Your task to perform on an android device: turn pop-ups off in chrome Image 0: 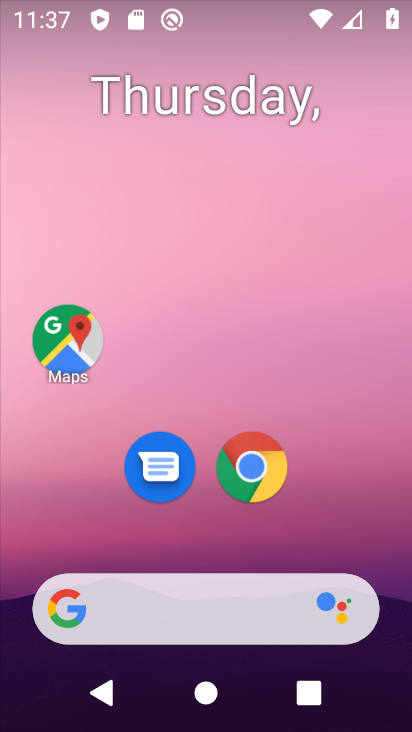
Step 0: click (262, 476)
Your task to perform on an android device: turn pop-ups off in chrome Image 1: 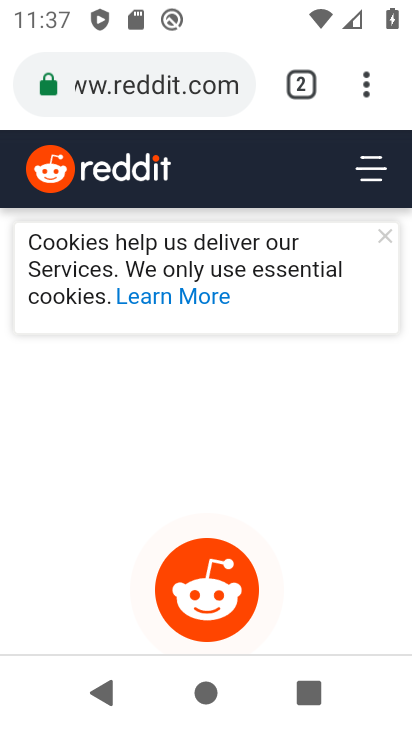
Step 1: click (367, 86)
Your task to perform on an android device: turn pop-ups off in chrome Image 2: 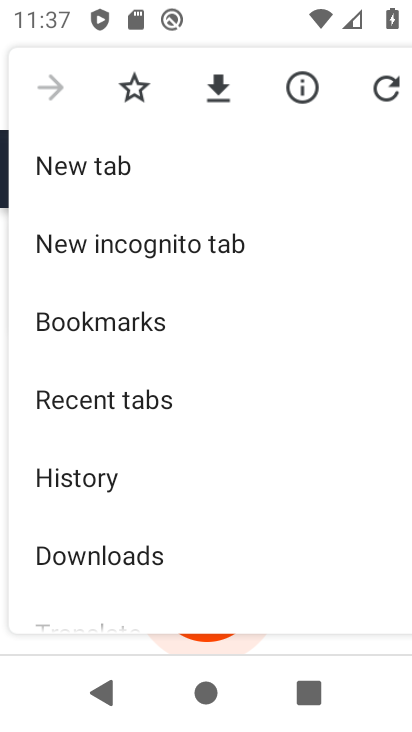
Step 2: drag from (208, 488) to (218, 147)
Your task to perform on an android device: turn pop-ups off in chrome Image 3: 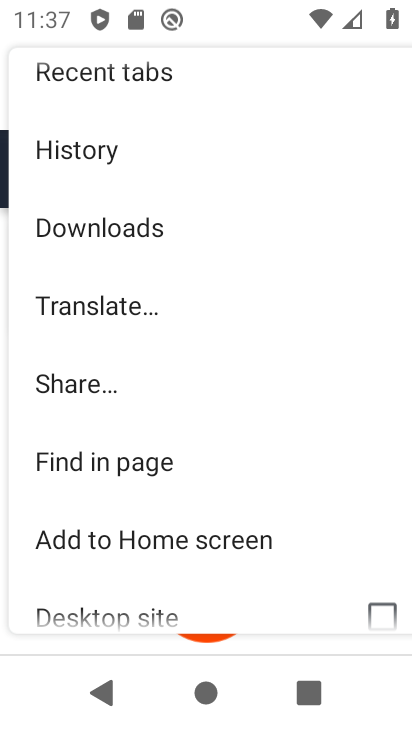
Step 3: drag from (209, 469) to (220, 114)
Your task to perform on an android device: turn pop-ups off in chrome Image 4: 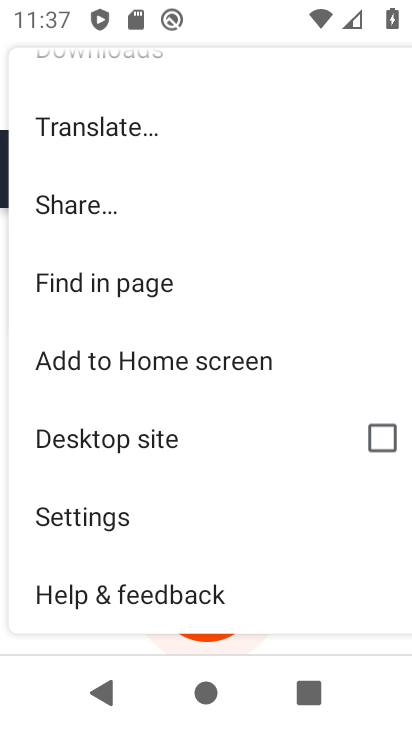
Step 4: click (81, 517)
Your task to perform on an android device: turn pop-ups off in chrome Image 5: 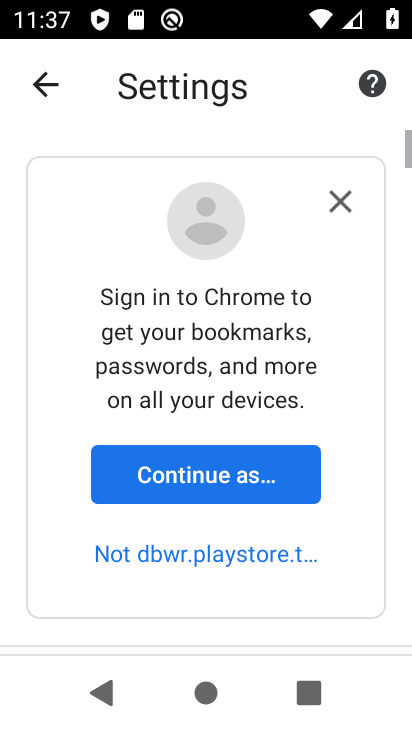
Step 5: drag from (216, 547) to (192, 93)
Your task to perform on an android device: turn pop-ups off in chrome Image 6: 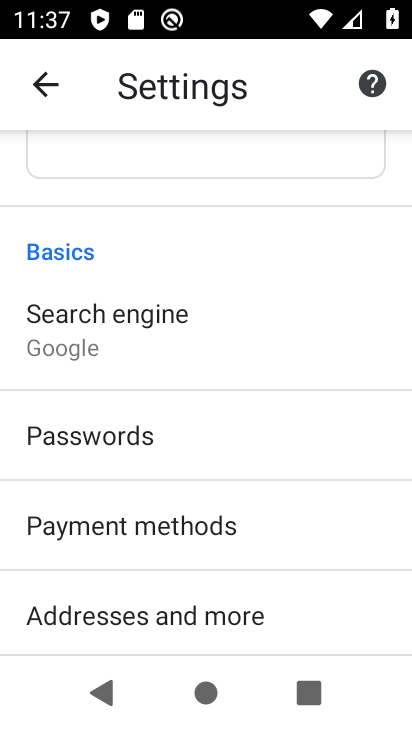
Step 6: drag from (147, 529) to (188, 144)
Your task to perform on an android device: turn pop-ups off in chrome Image 7: 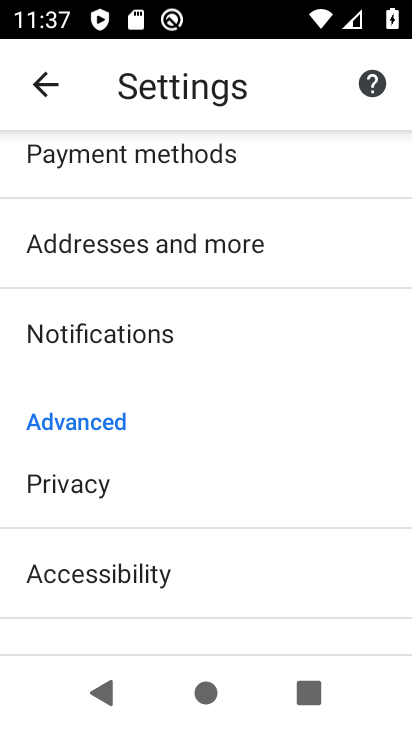
Step 7: drag from (189, 531) to (201, 179)
Your task to perform on an android device: turn pop-ups off in chrome Image 8: 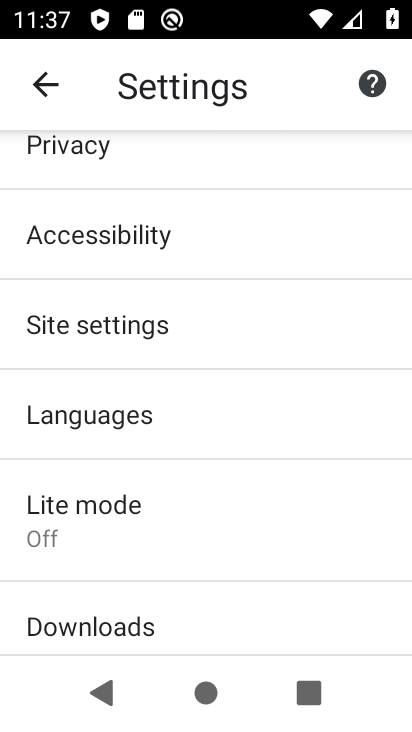
Step 8: click (87, 327)
Your task to perform on an android device: turn pop-ups off in chrome Image 9: 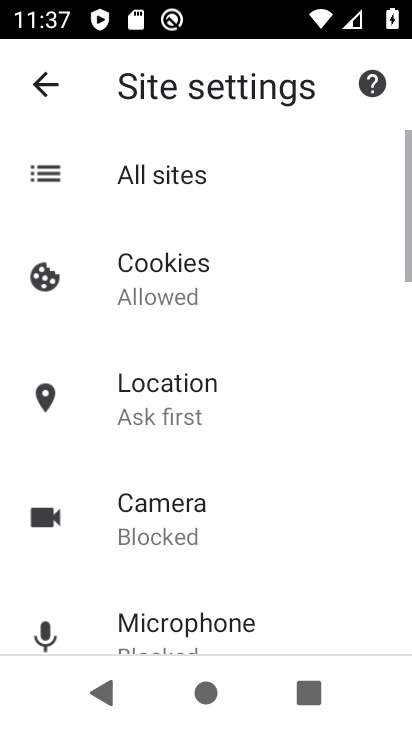
Step 9: drag from (241, 583) to (246, 172)
Your task to perform on an android device: turn pop-ups off in chrome Image 10: 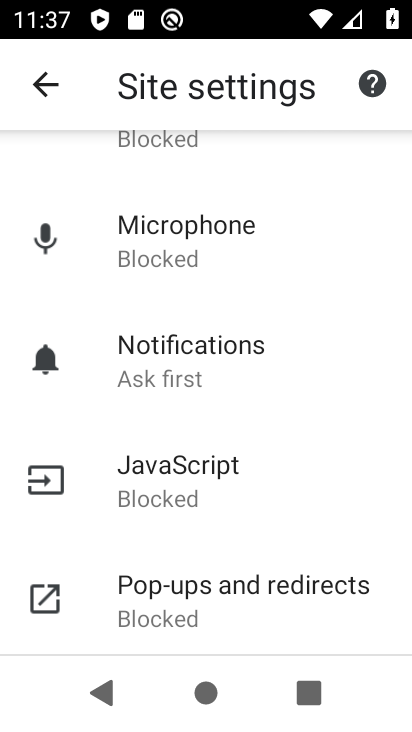
Step 10: click (158, 602)
Your task to perform on an android device: turn pop-ups off in chrome Image 11: 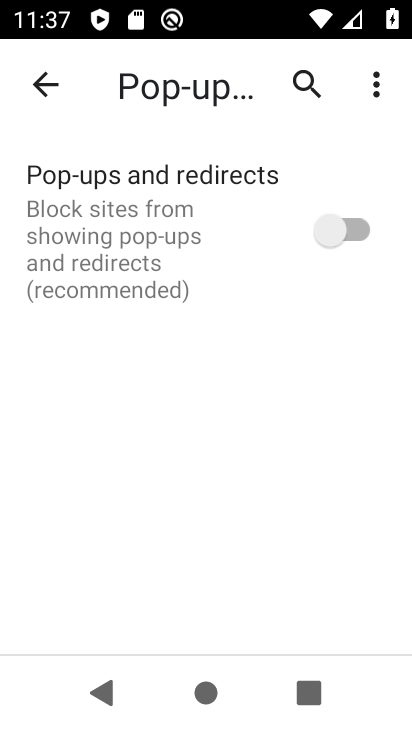
Step 11: task complete